Your task to perform on an android device: change the clock style Image 0: 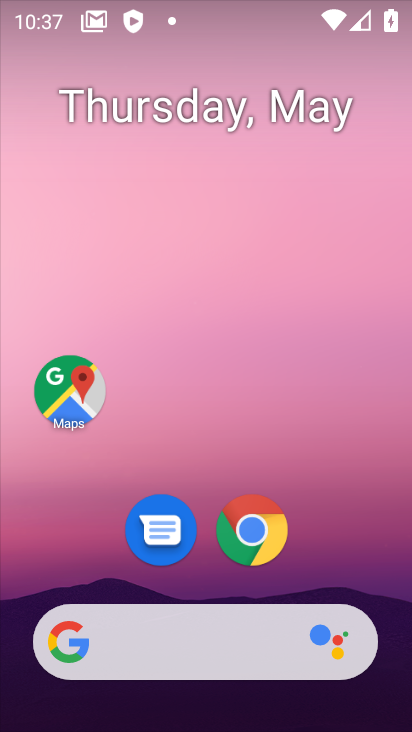
Step 0: drag from (328, 517) to (342, 11)
Your task to perform on an android device: change the clock style Image 1: 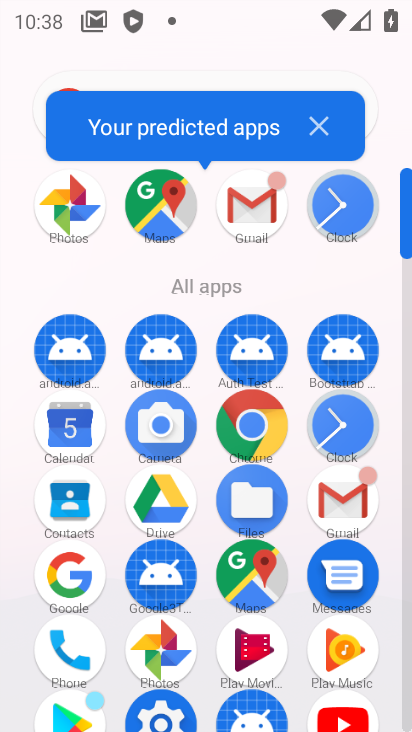
Step 1: click (349, 424)
Your task to perform on an android device: change the clock style Image 2: 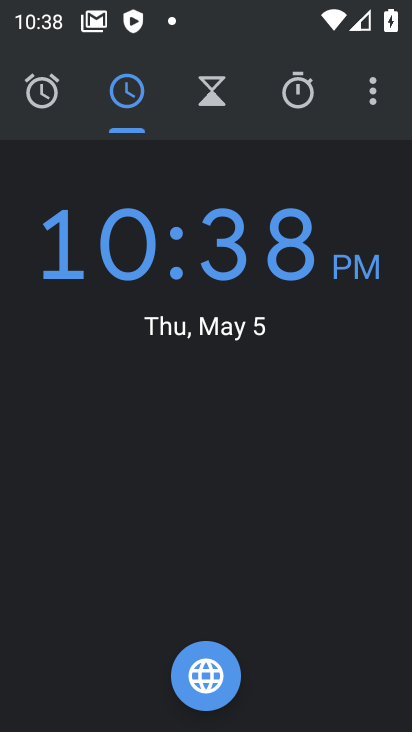
Step 2: click (373, 93)
Your task to perform on an android device: change the clock style Image 3: 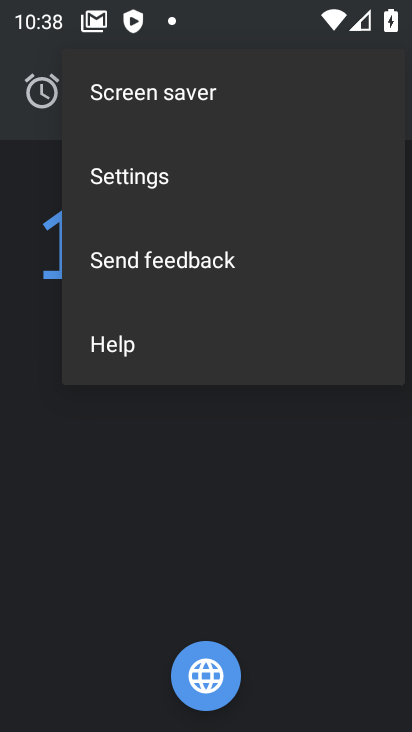
Step 3: click (147, 179)
Your task to perform on an android device: change the clock style Image 4: 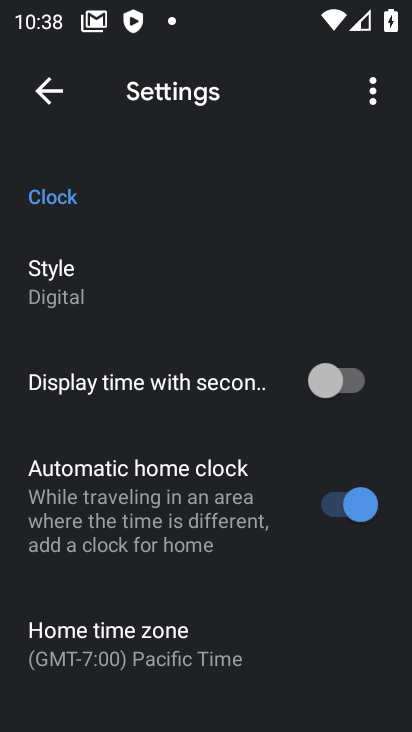
Step 4: click (103, 279)
Your task to perform on an android device: change the clock style Image 5: 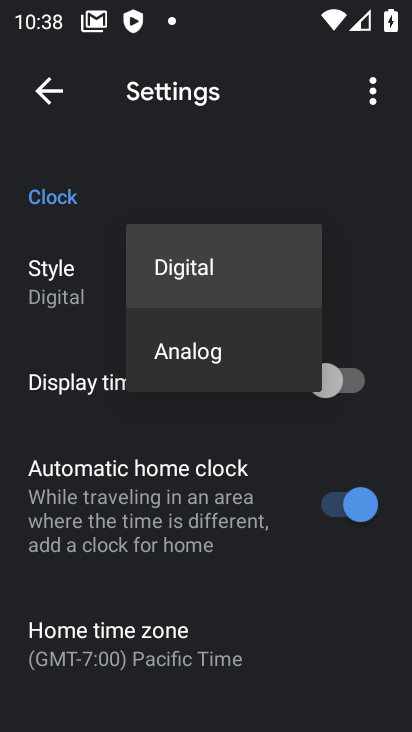
Step 5: click (201, 356)
Your task to perform on an android device: change the clock style Image 6: 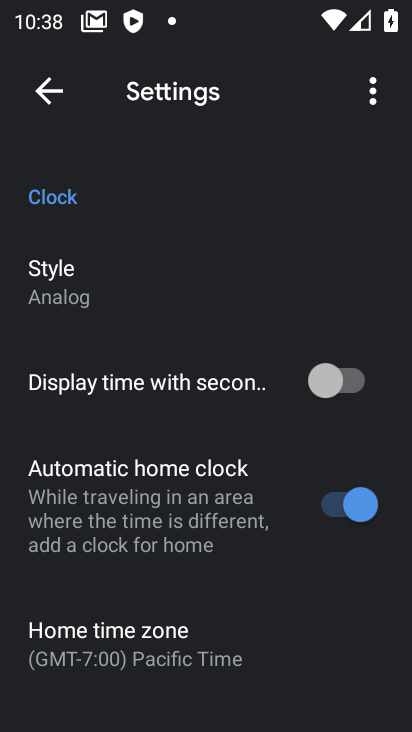
Step 6: task complete